Your task to perform on an android device: change text size in settings app Image 0: 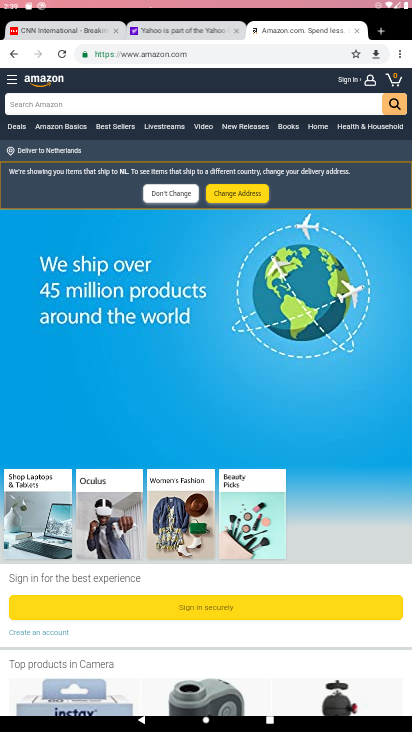
Step 0: click (204, 89)
Your task to perform on an android device: change text size in settings app Image 1: 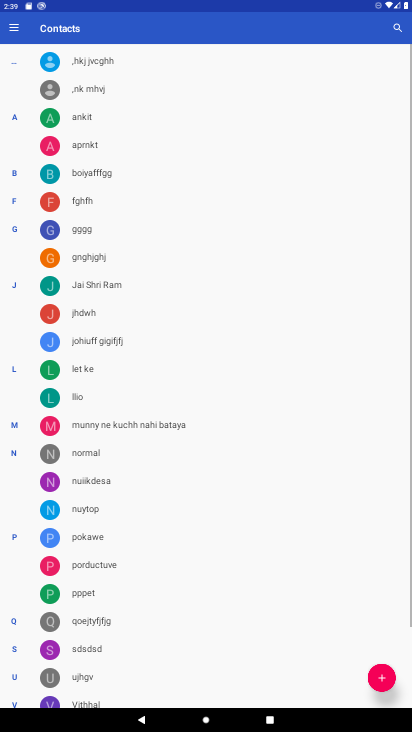
Step 1: click (204, 89)
Your task to perform on an android device: change text size in settings app Image 2: 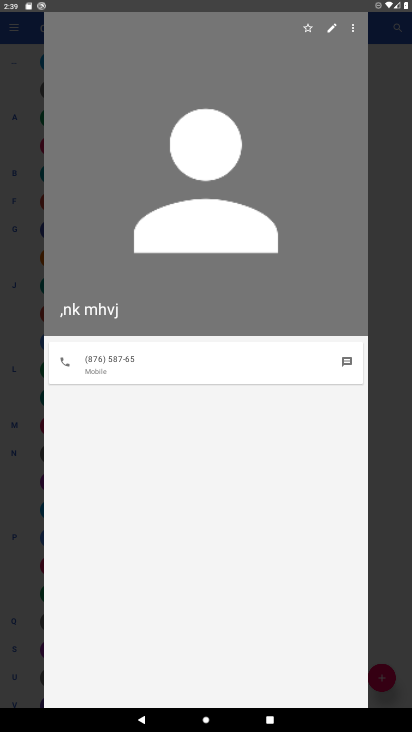
Step 2: press home button
Your task to perform on an android device: change text size in settings app Image 3: 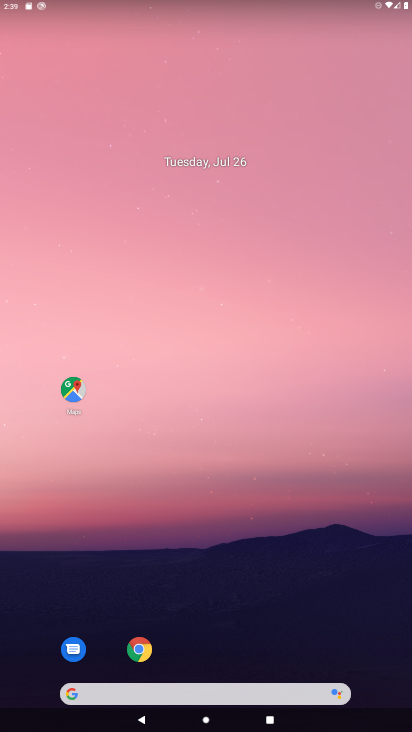
Step 3: drag from (206, 647) to (201, 362)
Your task to perform on an android device: change text size in settings app Image 4: 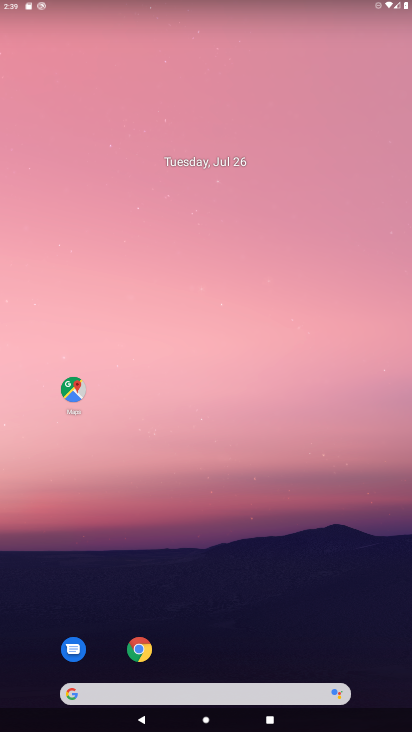
Step 4: drag from (226, 665) to (238, 42)
Your task to perform on an android device: change text size in settings app Image 5: 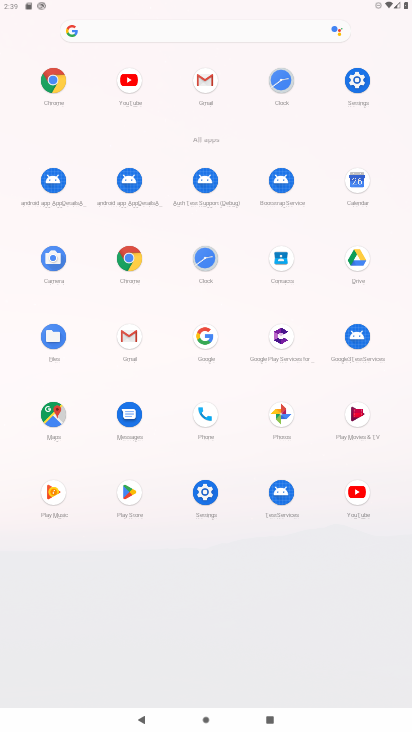
Step 5: click (351, 81)
Your task to perform on an android device: change text size in settings app Image 6: 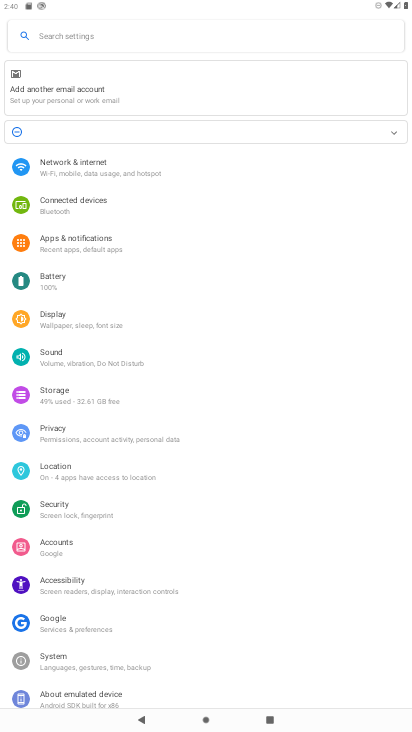
Step 6: click (40, 318)
Your task to perform on an android device: change text size in settings app Image 7: 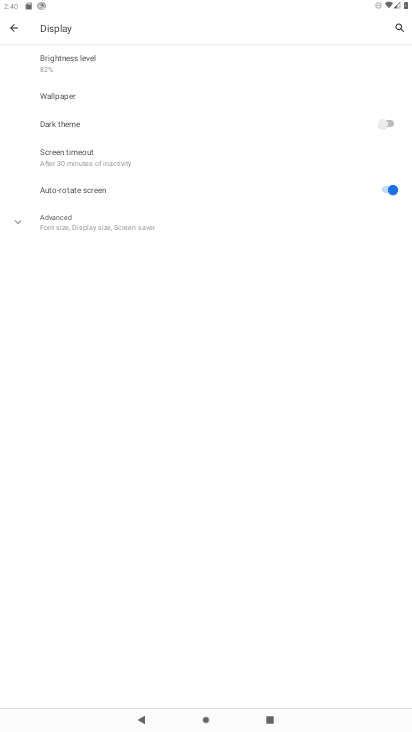
Step 7: click (77, 231)
Your task to perform on an android device: change text size in settings app Image 8: 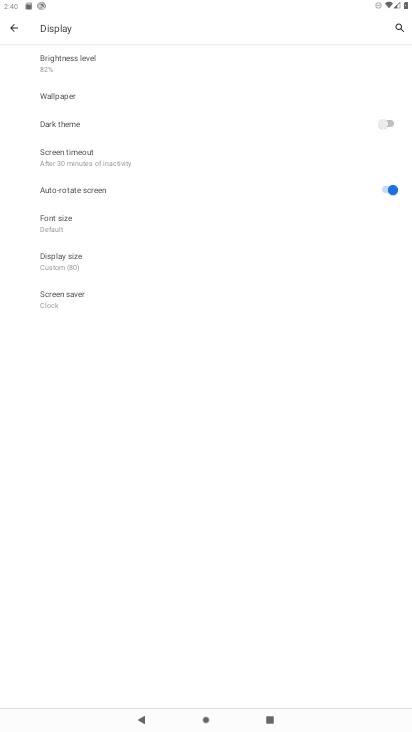
Step 8: click (49, 214)
Your task to perform on an android device: change text size in settings app Image 9: 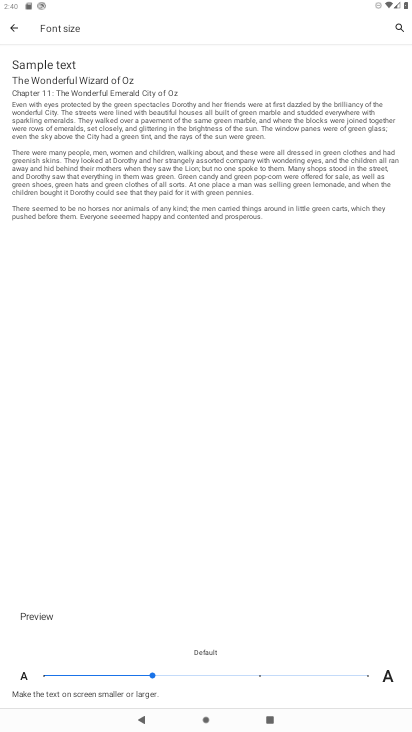
Step 9: click (41, 672)
Your task to perform on an android device: change text size in settings app Image 10: 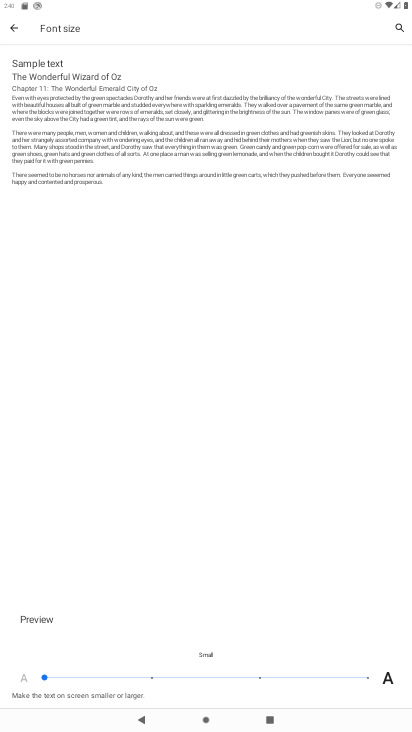
Step 10: task complete